Your task to perform on an android device: Go to sound settings Image 0: 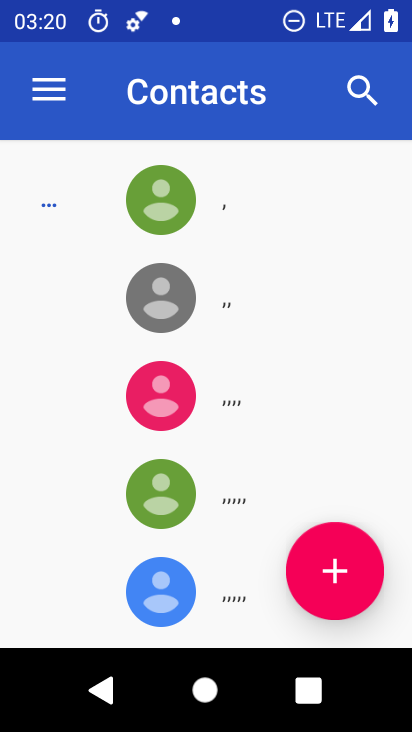
Step 0: press home button
Your task to perform on an android device: Go to sound settings Image 1: 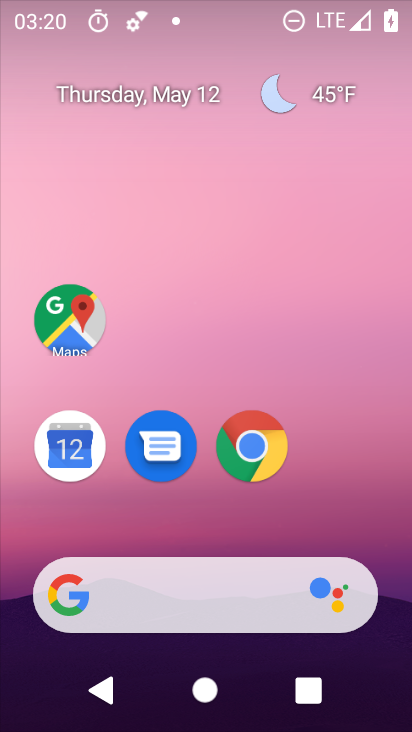
Step 1: drag from (174, 525) to (218, 222)
Your task to perform on an android device: Go to sound settings Image 2: 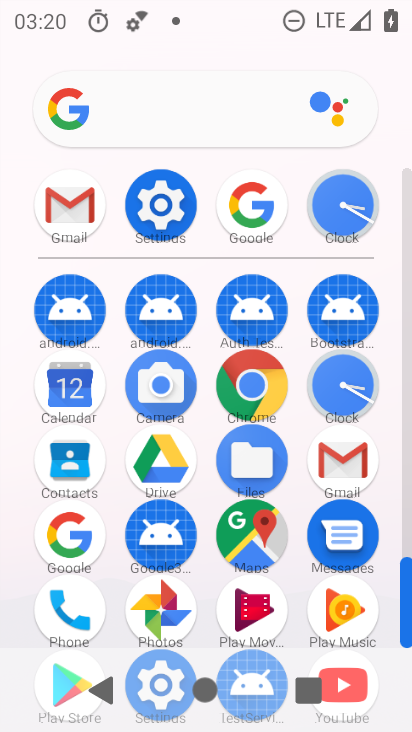
Step 2: click (178, 204)
Your task to perform on an android device: Go to sound settings Image 3: 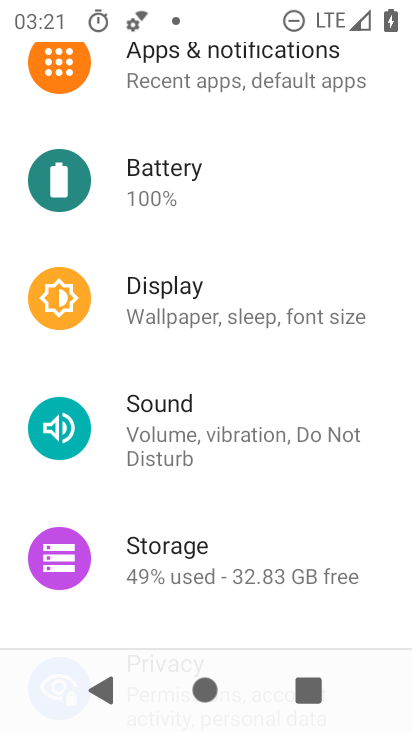
Step 3: drag from (196, 533) to (215, 410)
Your task to perform on an android device: Go to sound settings Image 4: 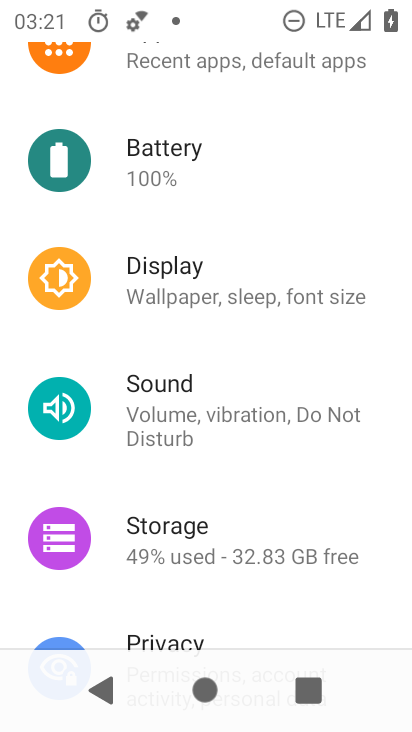
Step 4: click (215, 404)
Your task to perform on an android device: Go to sound settings Image 5: 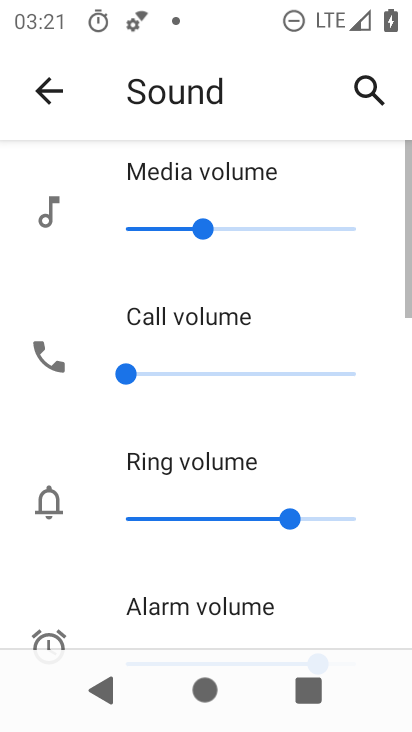
Step 5: task complete